Your task to perform on an android device: change keyboard looks Image 0: 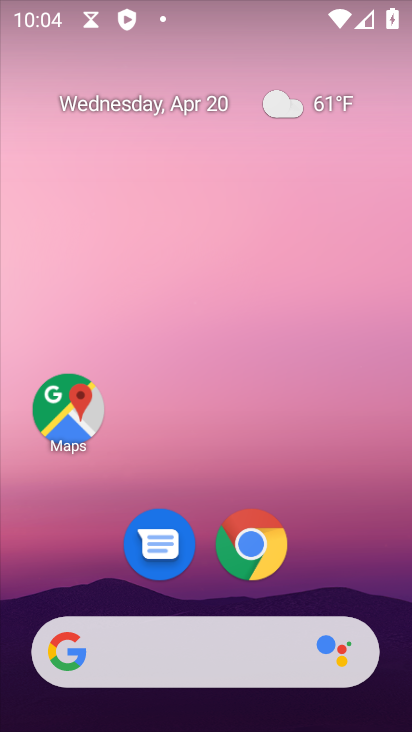
Step 0: drag from (209, 659) to (339, 13)
Your task to perform on an android device: change keyboard looks Image 1: 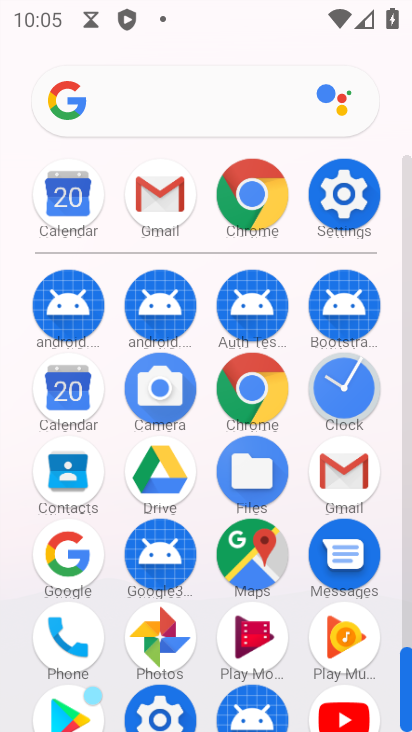
Step 1: drag from (193, 656) to (311, 230)
Your task to perform on an android device: change keyboard looks Image 2: 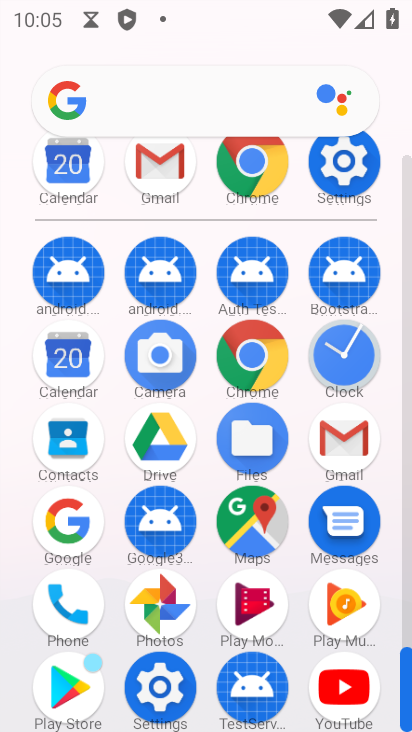
Step 2: click (167, 684)
Your task to perform on an android device: change keyboard looks Image 3: 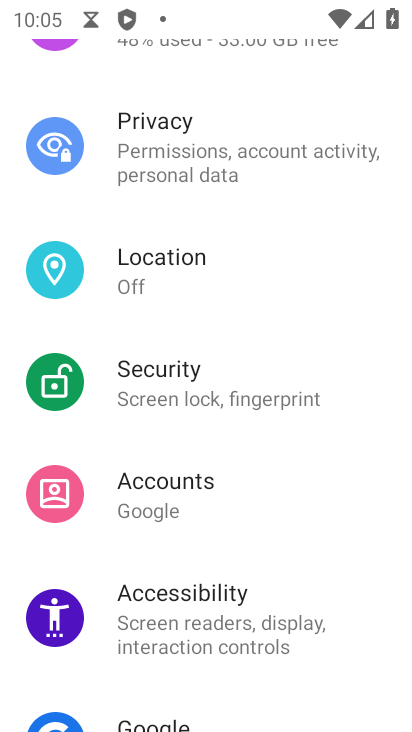
Step 3: drag from (185, 559) to (325, 87)
Your task to perform on an android device: change keyboard looks Image 4: 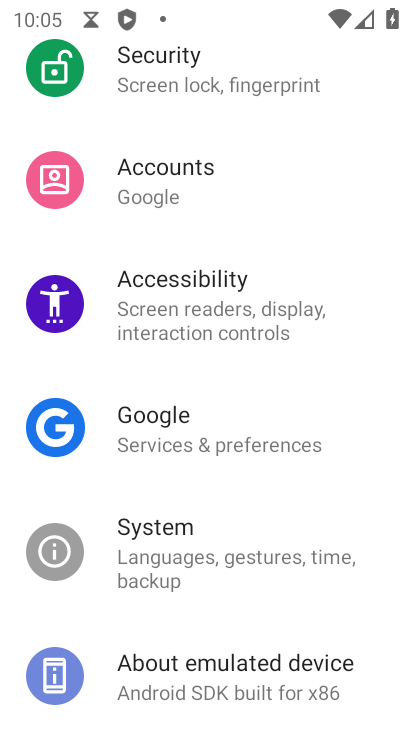
Step 4: click (198, 559)
Your task to perform on an android device: change keyboard looks Image 5: 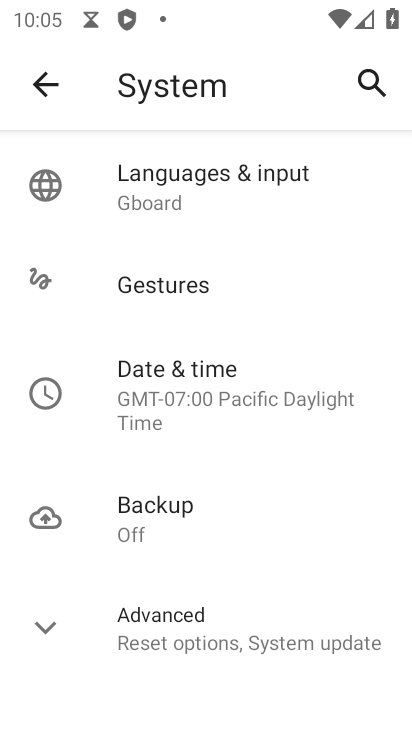
Step 5: click (172, 179)
Your task to perform on an android device: change keyboard looks Image 6: 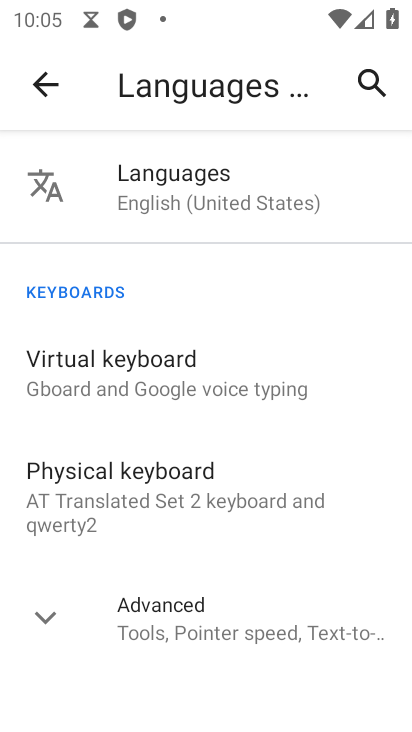
Step 6: click (131, 380)
Your task to perform on an android device: change keyboard looks Image 7: 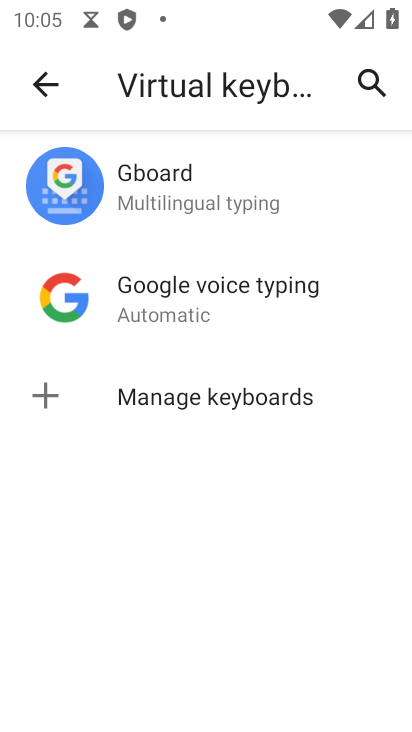
Step 7: click (173, 186)
Your task to perform on an android device: change keyboard looks Image 8: 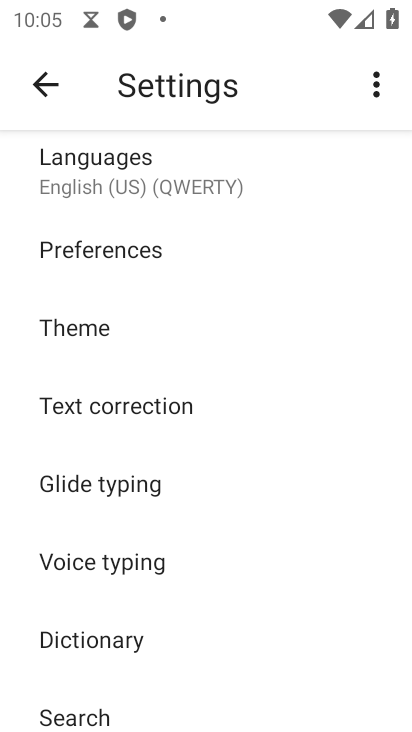
Step 8: click (60, 326)
Your task to perform on an android device: change keyboard looks Image 9: 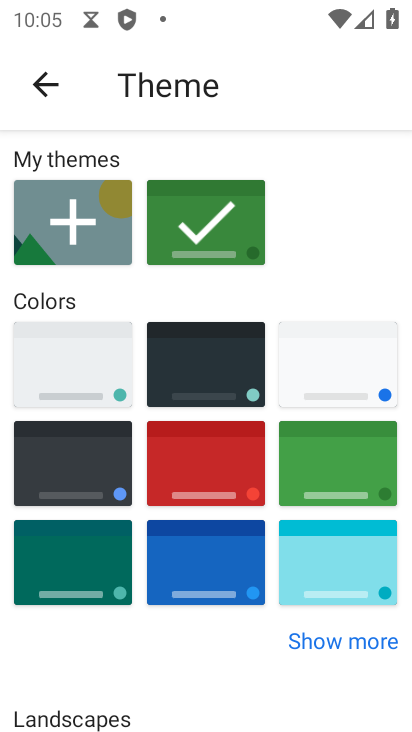
Step 9: click (210, 458)
Your task to perform on an android device: change keyboard looks Image 10: 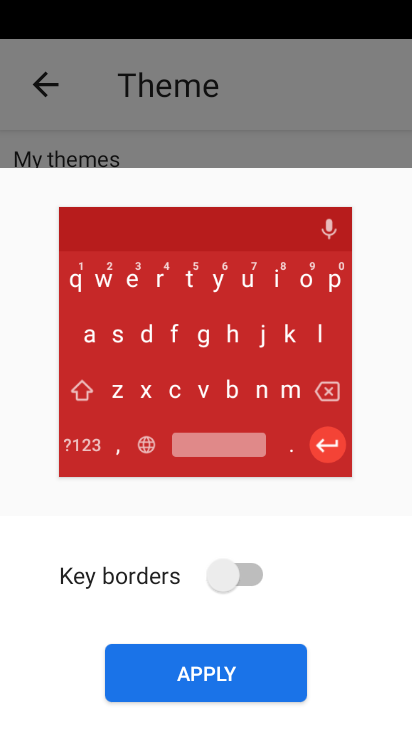
Step 10: click (179, 671)
Your task to perform on an android device: change keyboard looks Image 11: 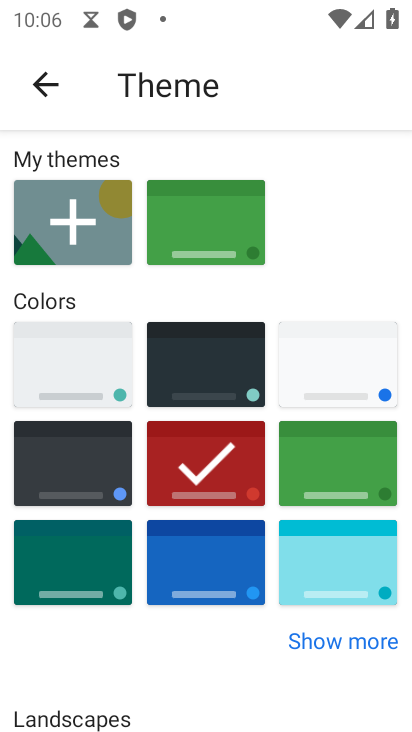
Step 11: task complete